Your task to perform on an android device: Go to privacy settings Image 0: 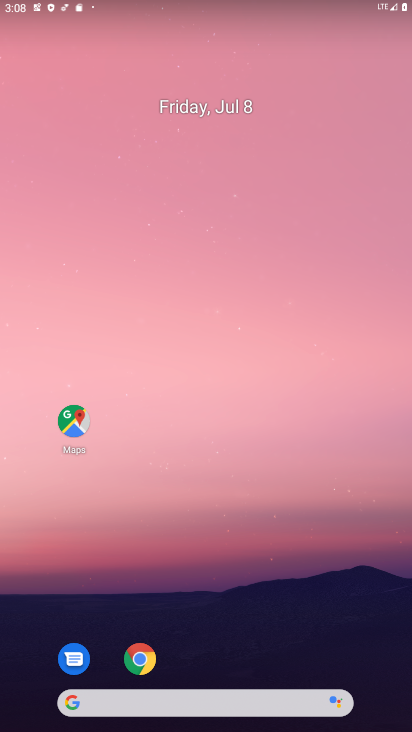
Step 0: drag from (215, 661) to (206, 217)
Your task to perform on an android device: Go to privacy settings Image 1: 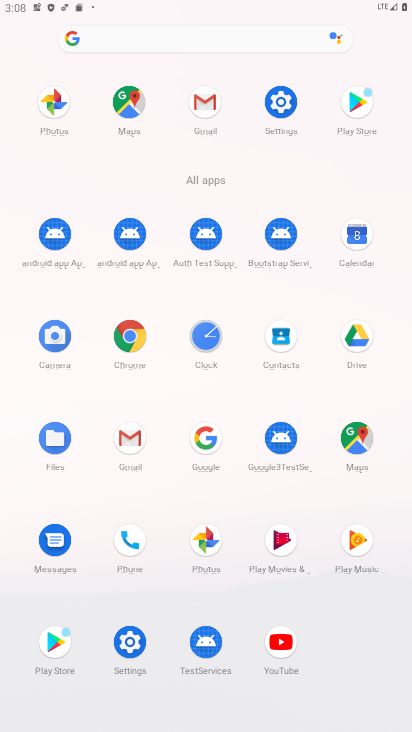
Step 1: click (279, 113)
Your task to perform on an android device: Go to privacy settings Image 2: 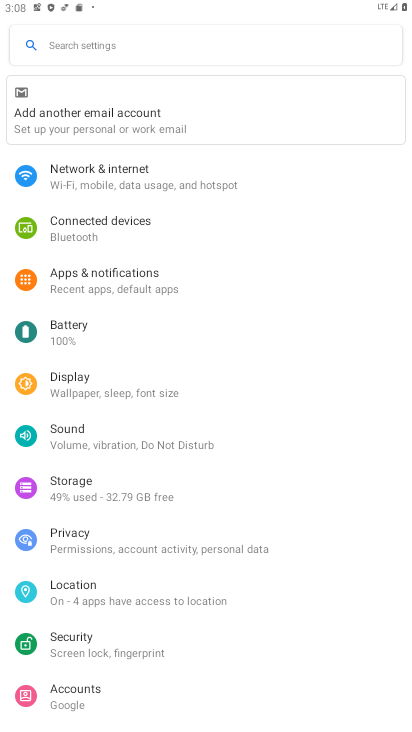
Step 2: click (113, 533)
Your task to perform on an android device: Go to privacy settings Image 3: 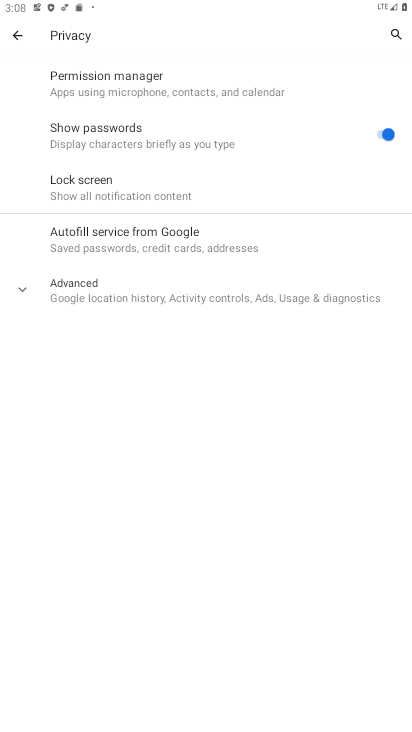
Step 3: task complete